Your task to perform on an android device: find which apps use the phone's location Image 0: 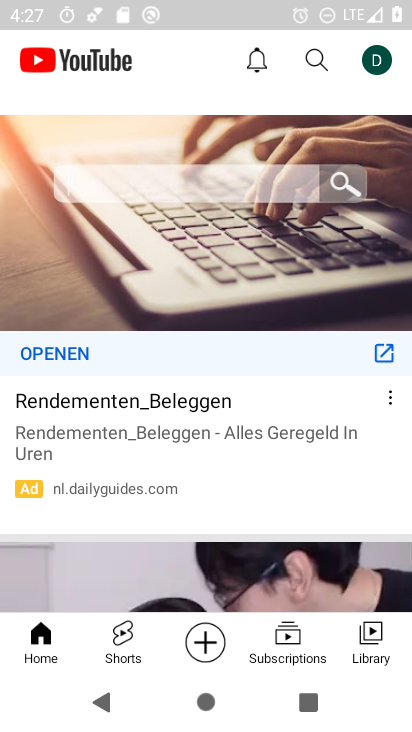
Step 0: press home button
Your task to perform on an android device: find which apps use the phone's location Image 1: 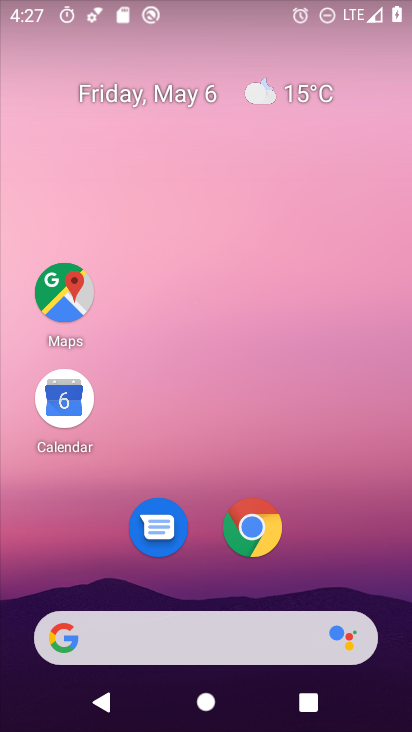
Step 1: drag from (335, 498) to (348, 152)
Your task to perform on an android device: find which apps use the phone's location Image 2: 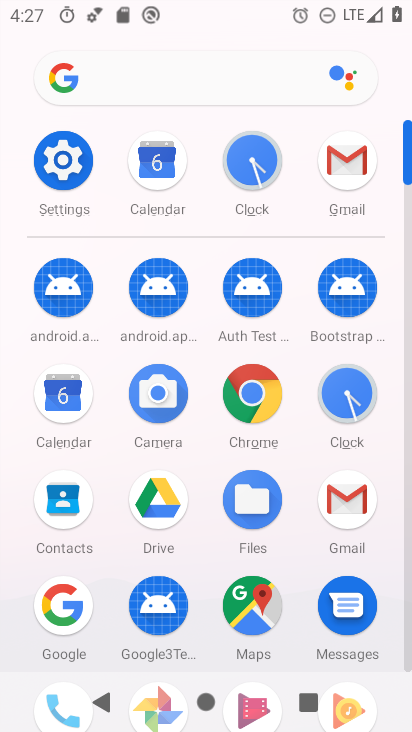
Step 2: click (66, 173)
Your task to perform on an android device: find which apps use the phone's location Image 3: 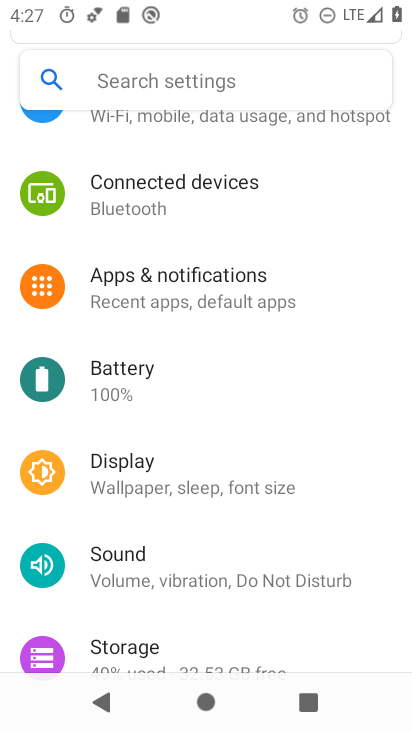
Step 3: drag from (246, 224) to (238, 654)
Your task to perform on an android device: find which apps use the phone's location Image 4: 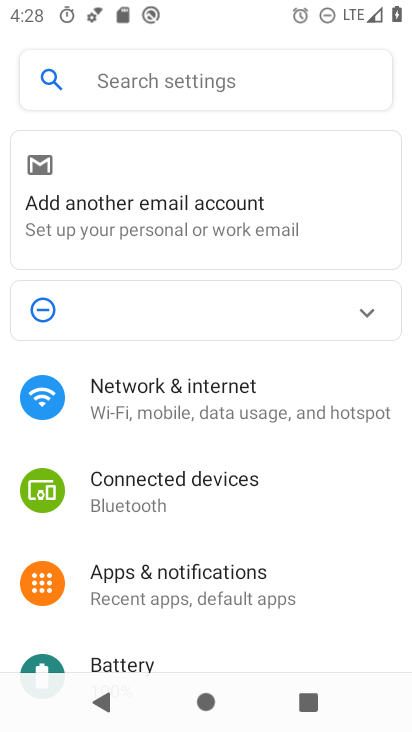
Step 4: drag from (249, 587) to (299, 84)
Your task to perform on an android device: find which apps use the phone's location Image 5: 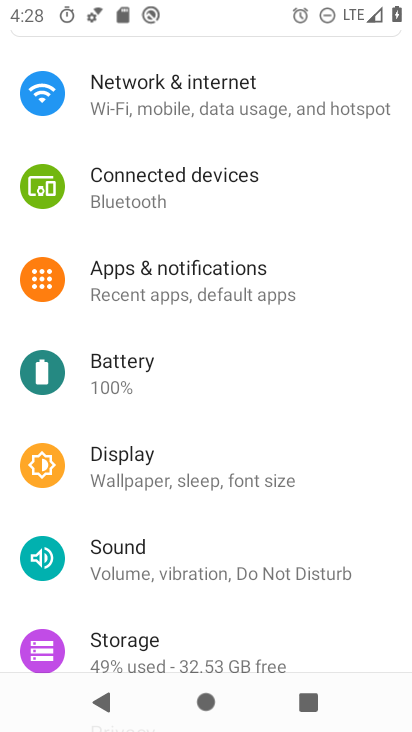
Step 5: drag from (242, 574) to (295, 165)
Your task to perform on an android device: find which apps use the phone's location Image 6: 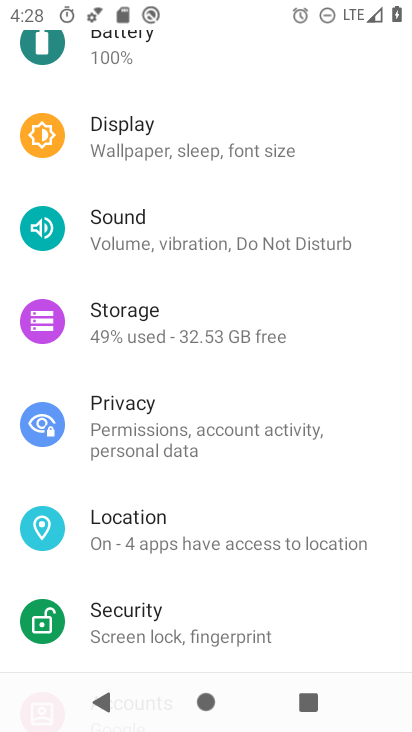
Step 6: click (169, 518)
Your task to perform on an android device: find which apps use the phone's location Image 7: 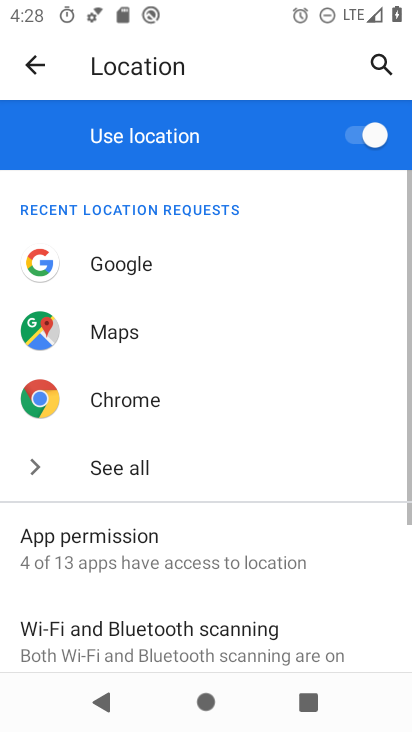
Step 7: drag from (243, 595) to (264, 192)
Your task to perform on an android device: find which apps use the phone's location Image 8: 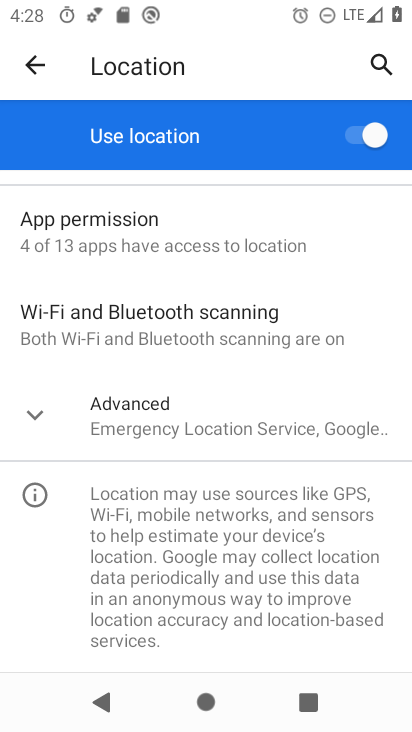
Step 8: click (171, 243)
Your task to perform on an android device: find which apps use the phone's location Image 9: 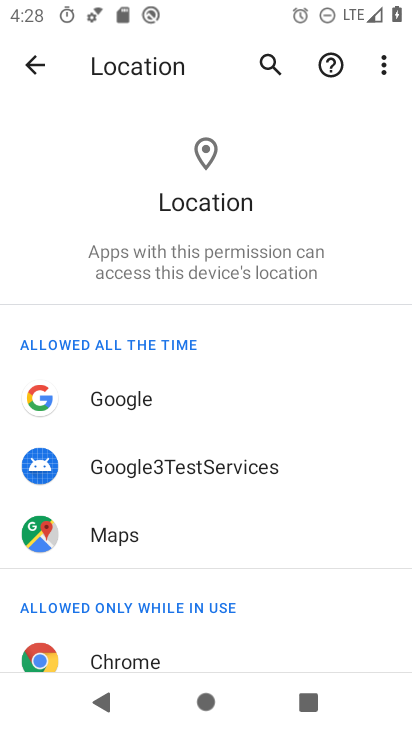
Step 9: task complete